Your task to perform on an android device: snooze an email in the gmail app Image 0: 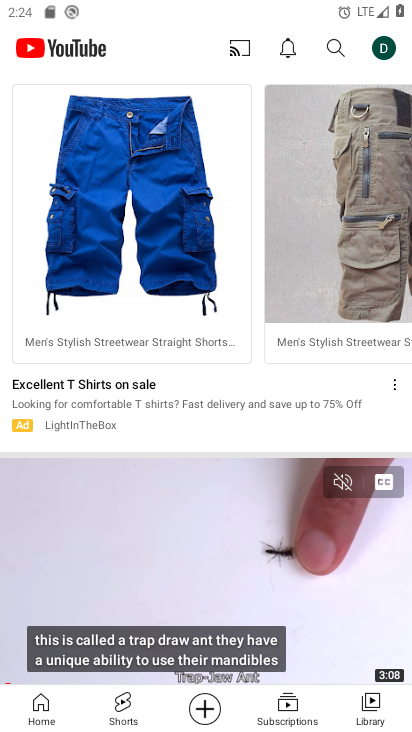
Step 0: press home button
Your task to perform on an android device: snooze an email in the gmail app Image 1: 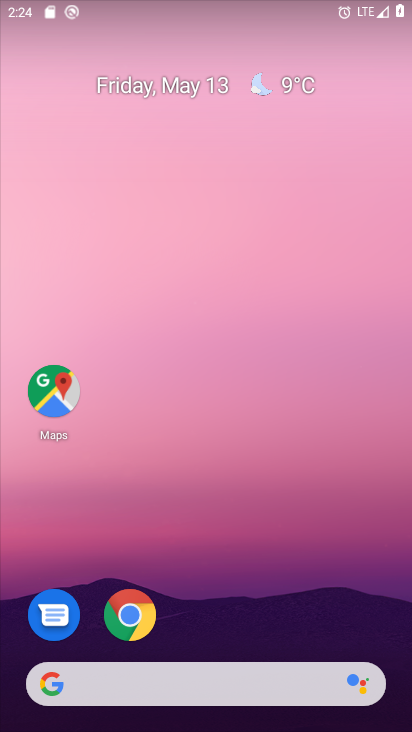
Step 1: drag from (188, 594) to (261, 26)
Your task to perform on an android device: snooze an email in the gmail app Image 2: 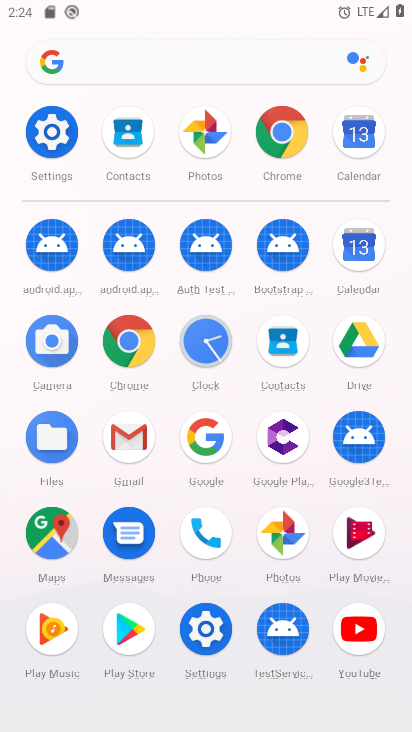
Step 2: click (116, 431)
Your task to perform on an android device: snooze an email in the gmail app Image 3: 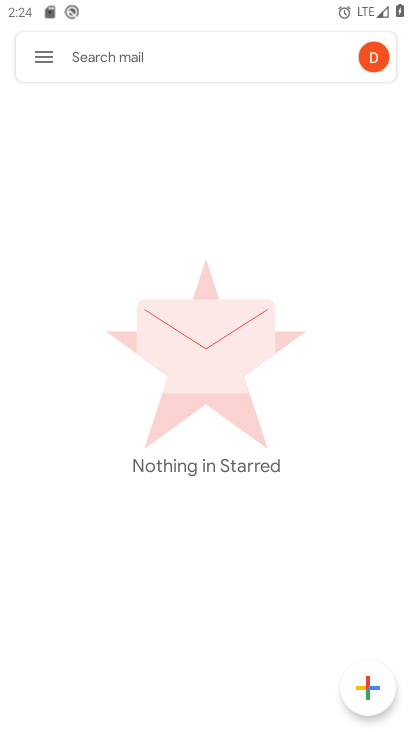
Step 3: click (49, 60)
Your task to perform on an android device: snooze an email in the gmail app Image 4: 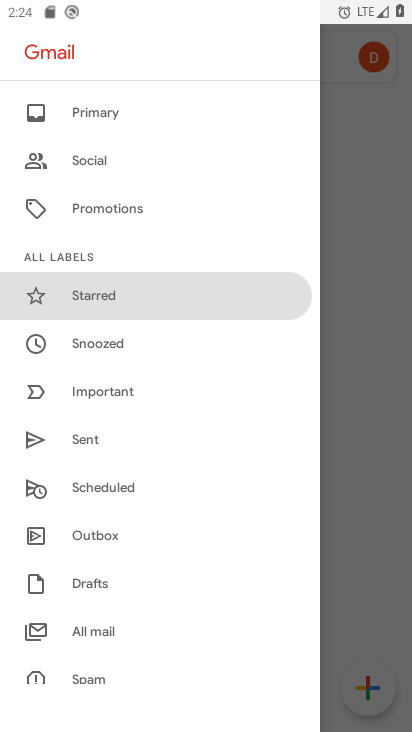
Step 4: click (105, 627)
Your task to perform on an android device: snooze an email in the gmail app Image 5: 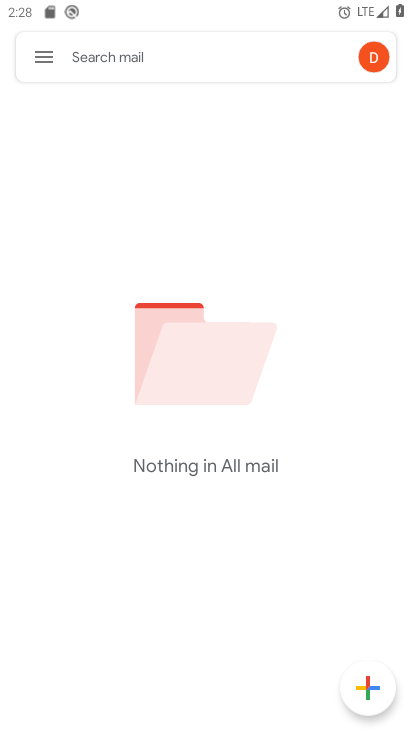
Step 5: task complete